Your task to perform on an android device: Open Amazon Image 0: 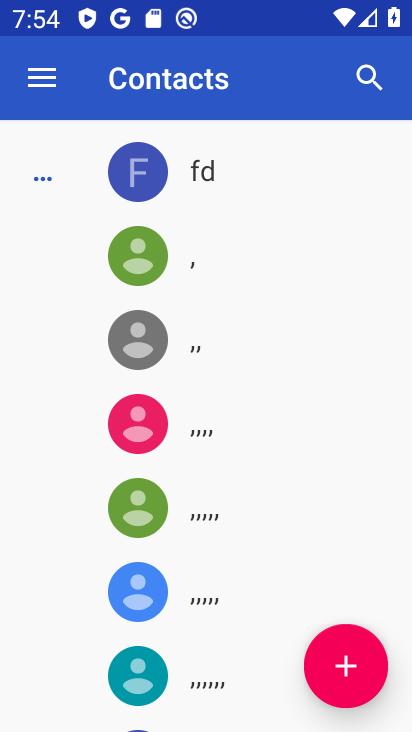
Step 0: press home button
Your task to perform on an android device: Open Amazon Image 1: 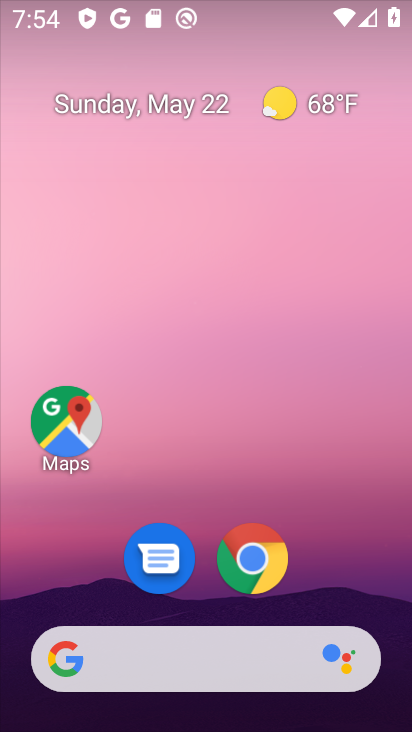
Step 1: drag from (314, 582) to (277, 134)
Your task to perform on an android device: Open Amazon Image 2: 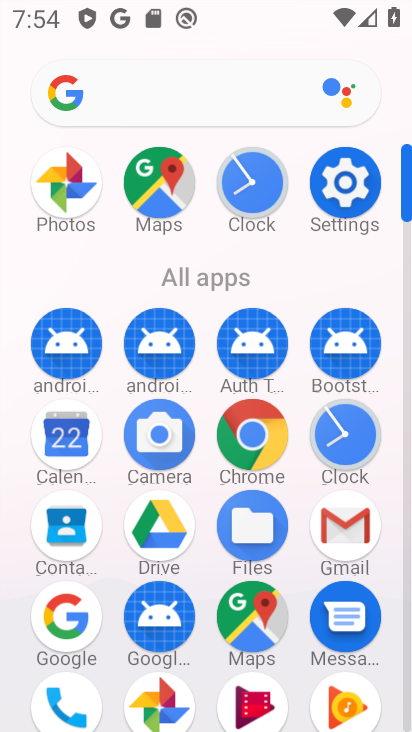
Step 2: click (242, 433)
Your task to perform on an android device: Open Amazon Image 3: 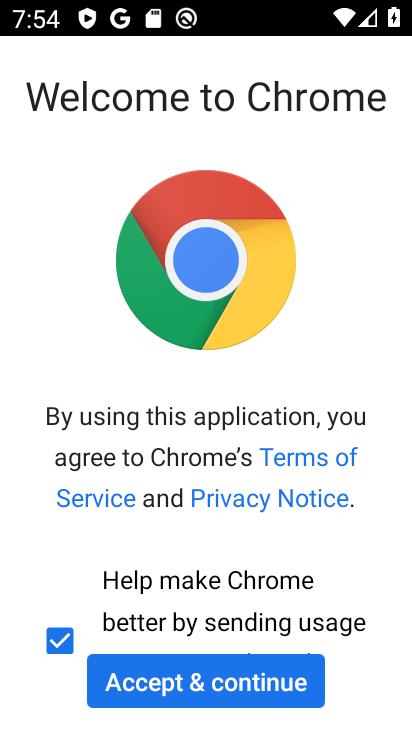
Step 3: click (220, 699)
Your task to perform on an android device: Open Amazon Image 4: 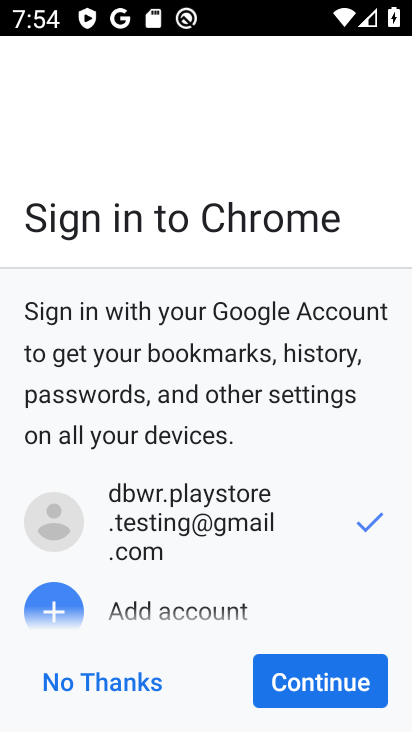
Step 4: click (322, 674)
Your task to perform on an android device: Open Amazon Image 5: 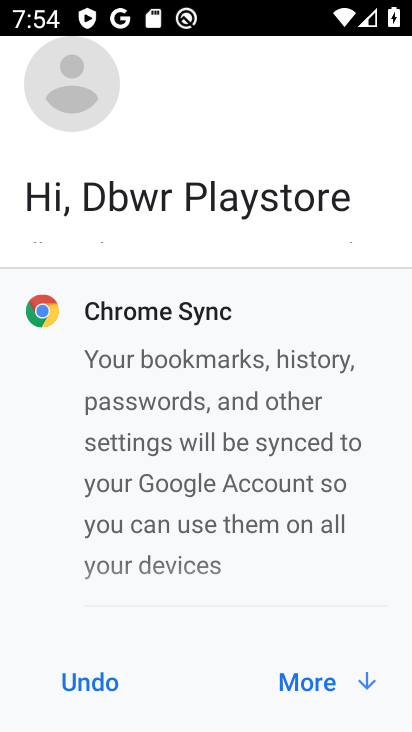
Step 5: click (325, 676)
Your task to perform on an android device: Open Amazon Image 6: 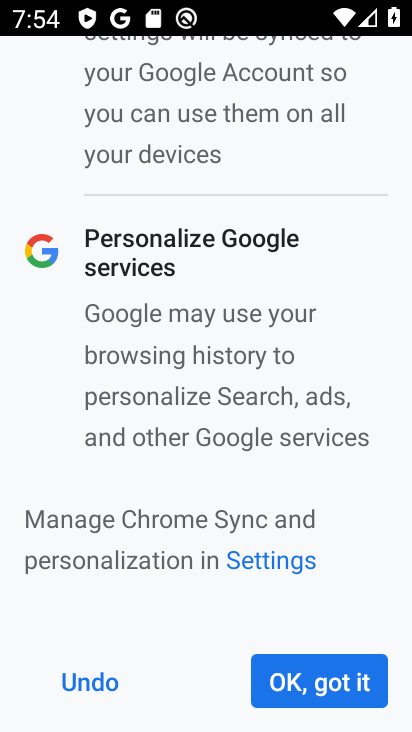
Step 6: click (289, 663)
Your task to perform on an android device: Open Amazon Image 7: 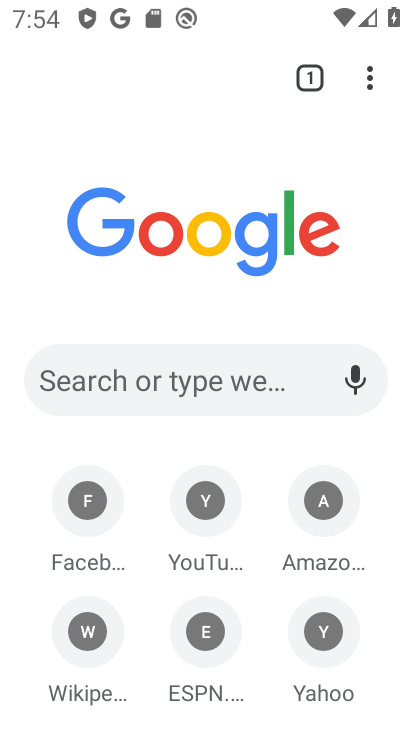
Step 7: click (371, 63)
Your task to perform on an android device: Open Amazon Image 8: 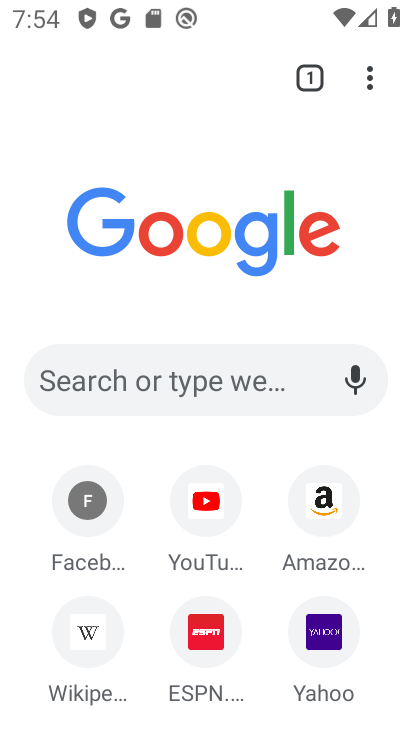
Step 8: click (316, 522)
Your task to perform on an android device: Open Amazon Image 9: 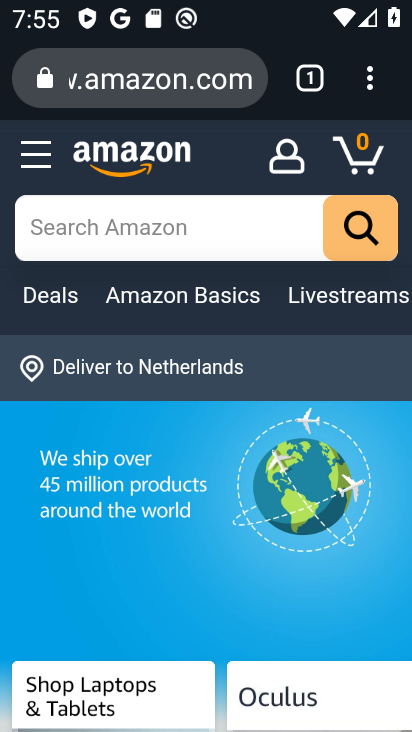
Step 9: task complete